Your task to perform on an android device: Go to settings Image 0: 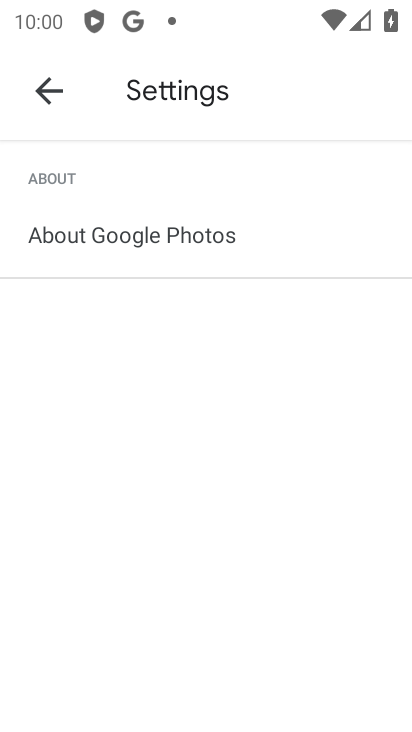
Step 0: press home button
Your task to perform on an android device: Go to settings Image 1: 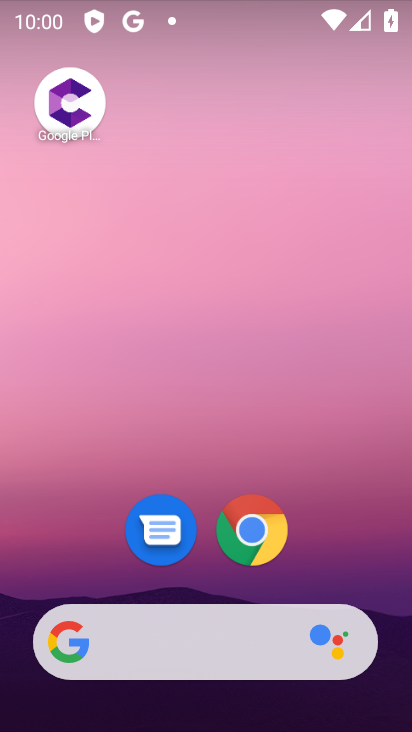
Step 1: drag from (359, 528) to (372, 95)
Your task to perform on an android device: Go to settings Image 2: 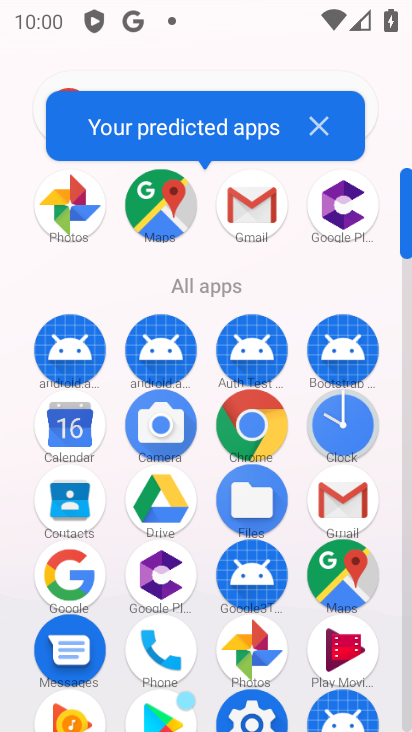
Step 2: drag from (203, 518) to (202, 218)
Your task to perform on an android device: Go to settings Image 3: 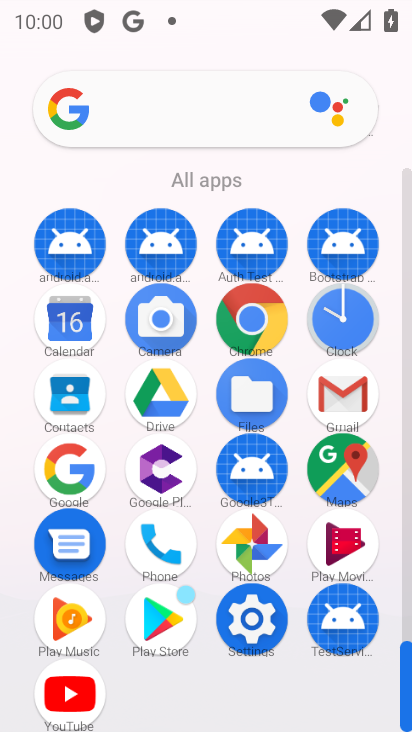
Step 3: click (256, 625)
Your task to perform on an android device: Go to settings Image 4: 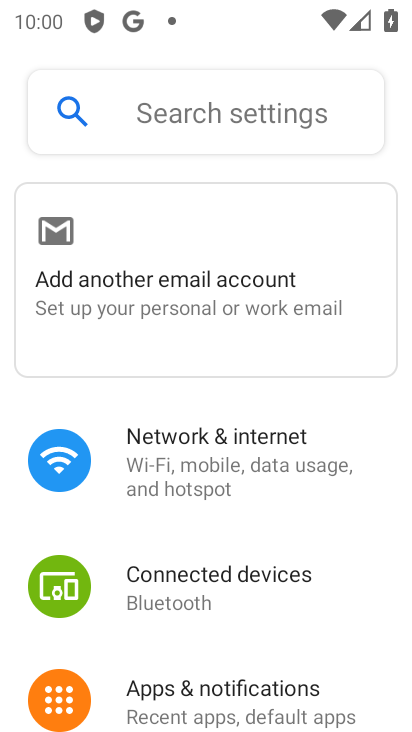
Step 4: task complete